Your task to perform on an android device: Go to notification settings Image 0: 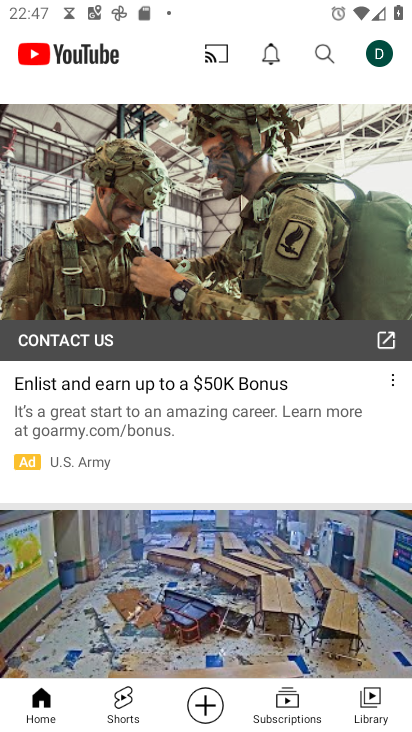
Step 0: press home button
Your task to perform on an android device: Go to notification settings Image 1: 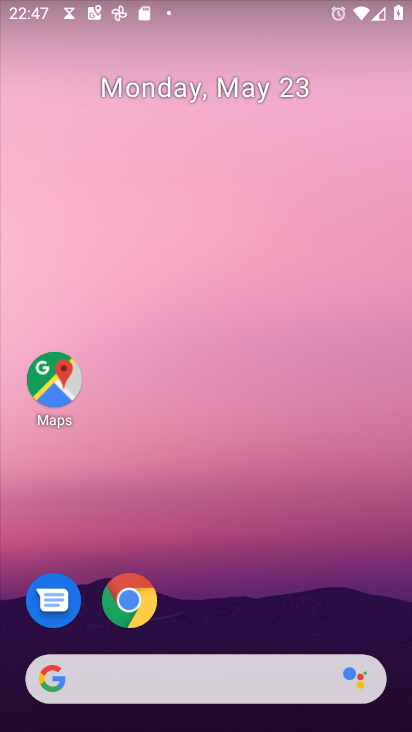
Step 1: drag from (214, 712) to (204, 253)
Your task to perform on an android device: Go to notification settings Image 2: 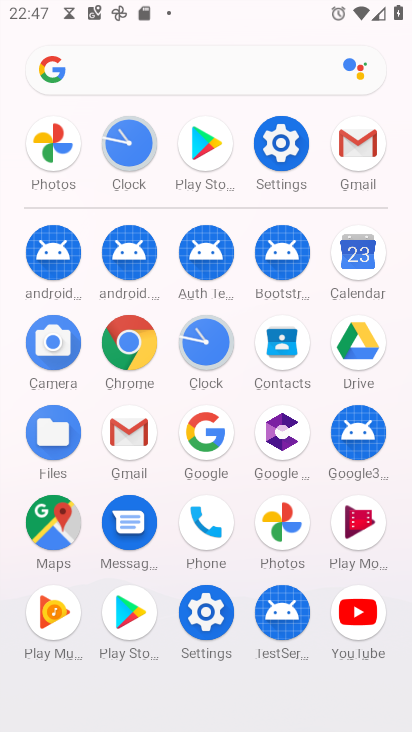
Step 2: click (209, 608)
Your task to perform on an android device: Go to notification settings Image 3: 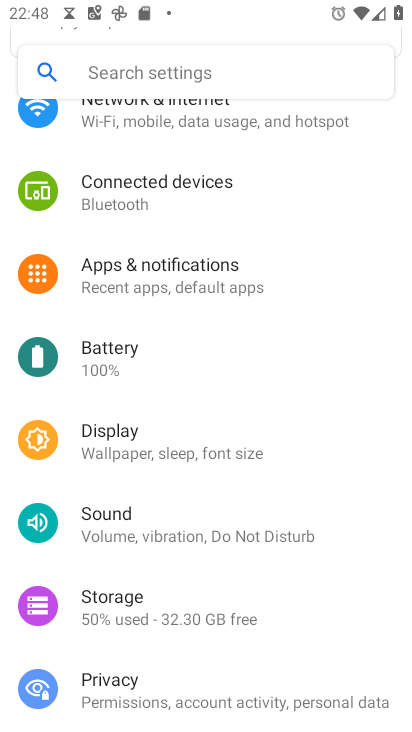
Step 3: click (161, 272)
Your task to perform on an android device: Go to notification settings Image 4: 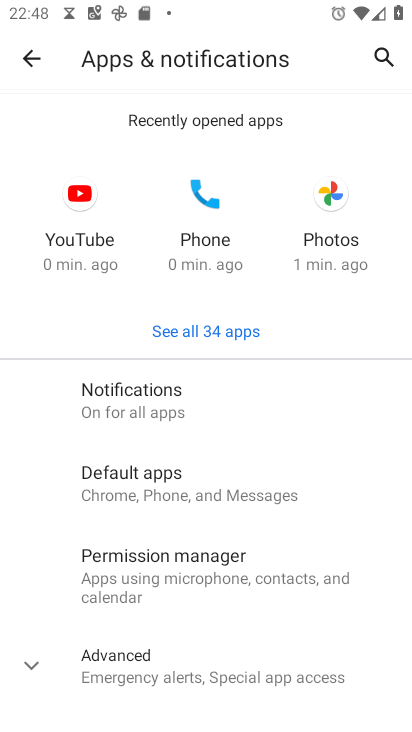
Step 4: click (100, 409)
Your task to perform on an android device: Go to notification settings Image 5: 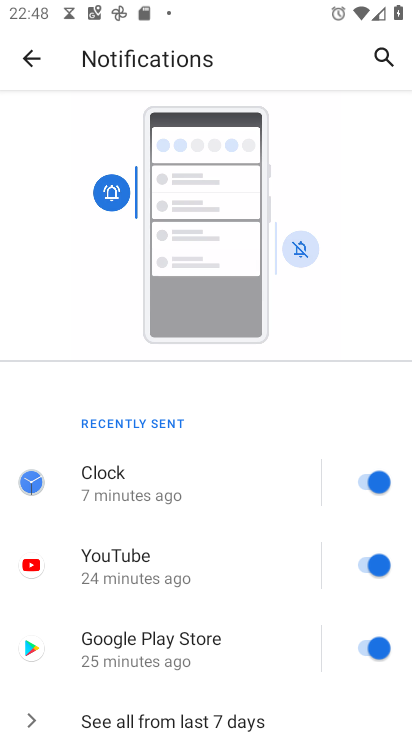
Step 5: task complete